Your task to perform on an android device: Check the weather Image 0: 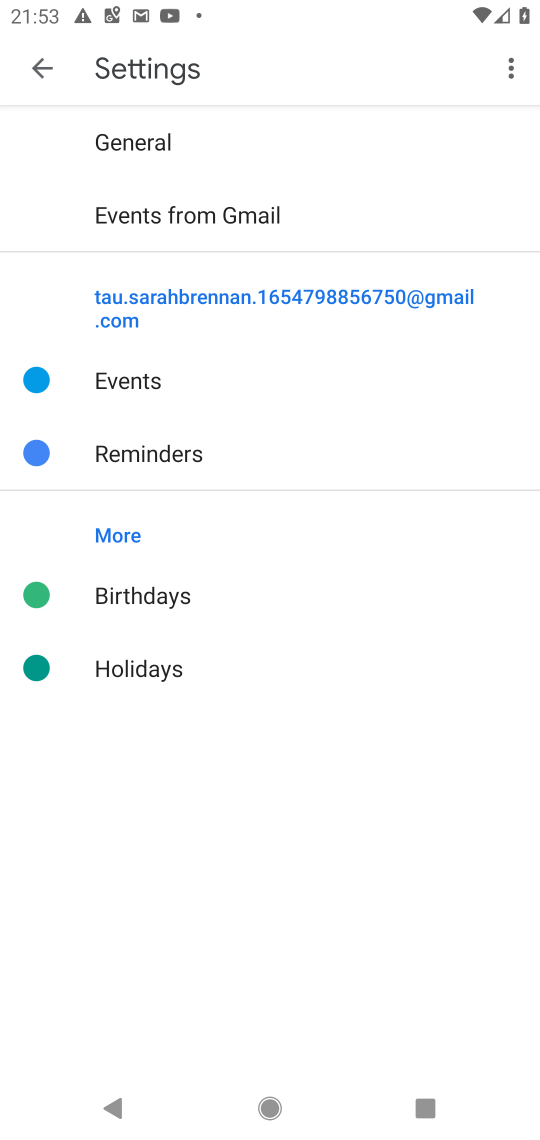
Step 0: press home button
Your task to perform on an android device: Check the weather Image 1: 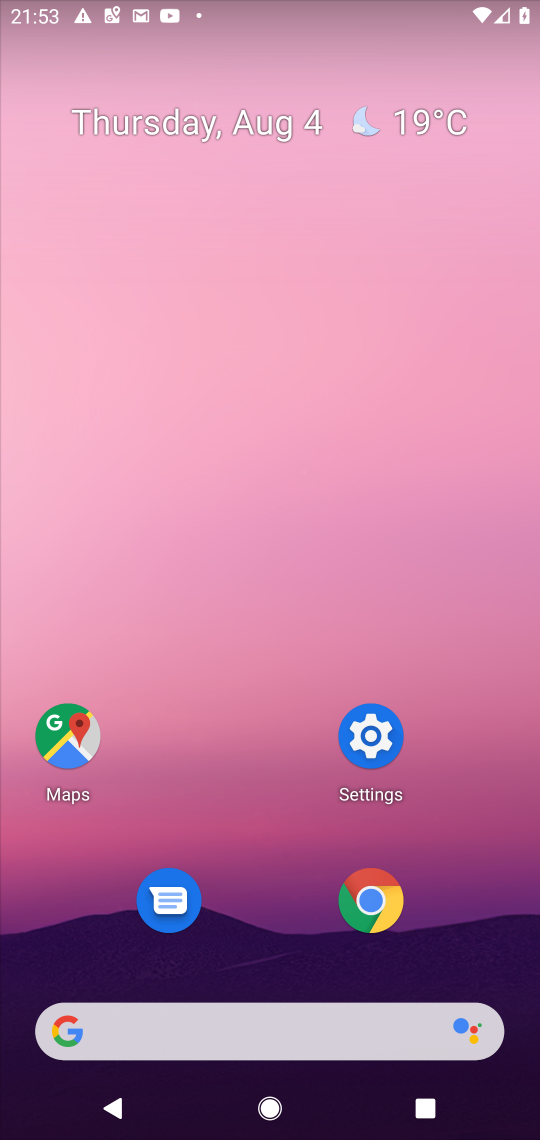
Step 1: click (202, 1030)
Your task to perform on an android device: Check the weather Image 2: 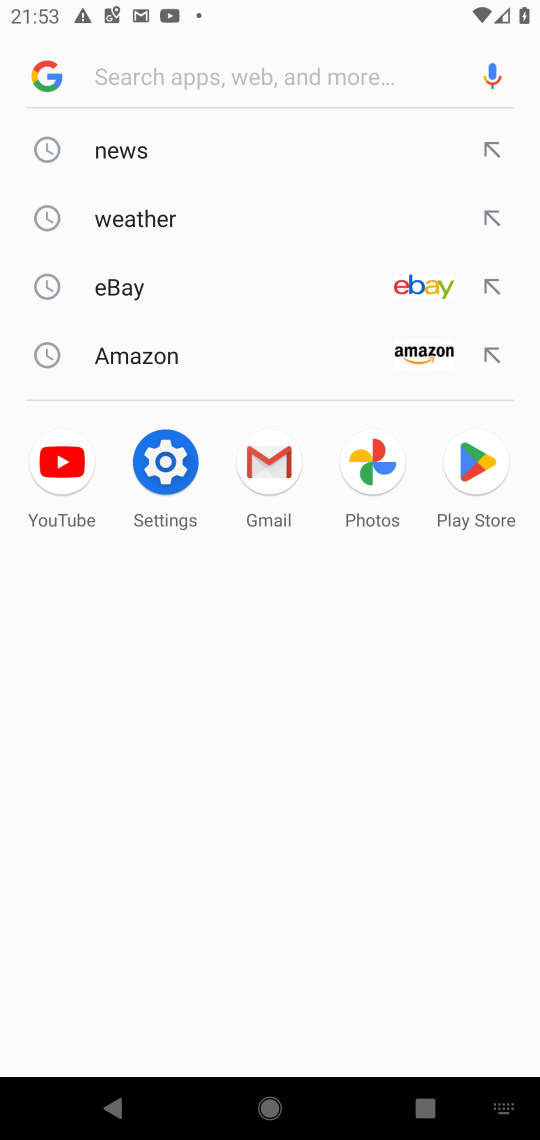
Step 2: click (154, 220)
Your task to perform on an android device: Check the weather Image 3: 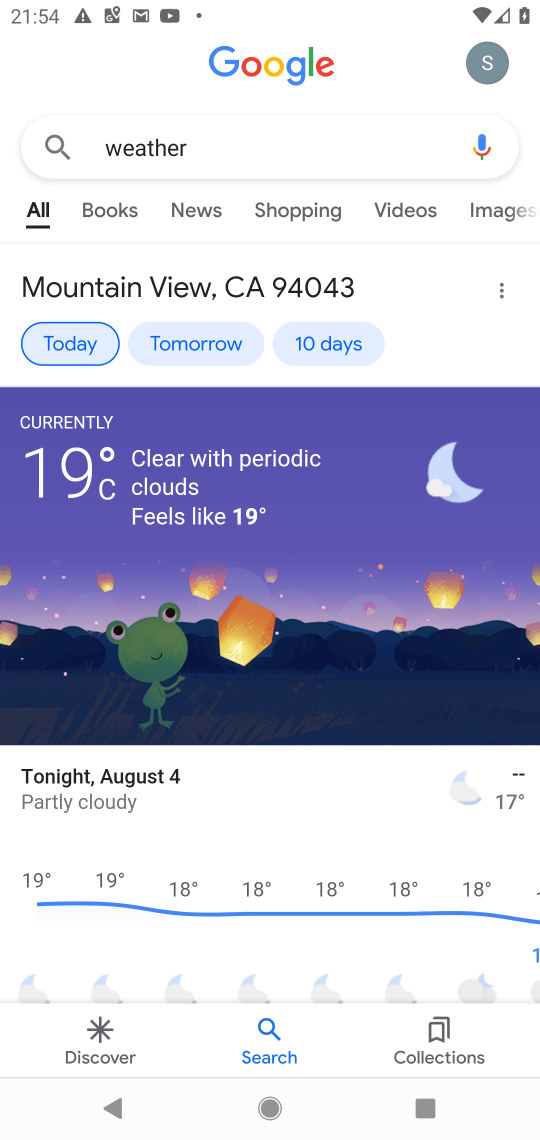
Step 3: task complete